Your task to perform on an android device: turn on notifications settings in the gmail app Image 0: 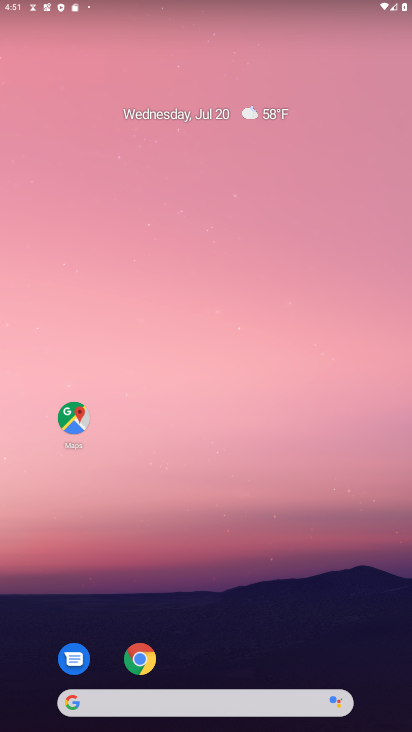
Step 0: drag from (238, 703) to (292, 74)
Your task to perform on an android device: turn on notifications settings in the gmail app Image 1: 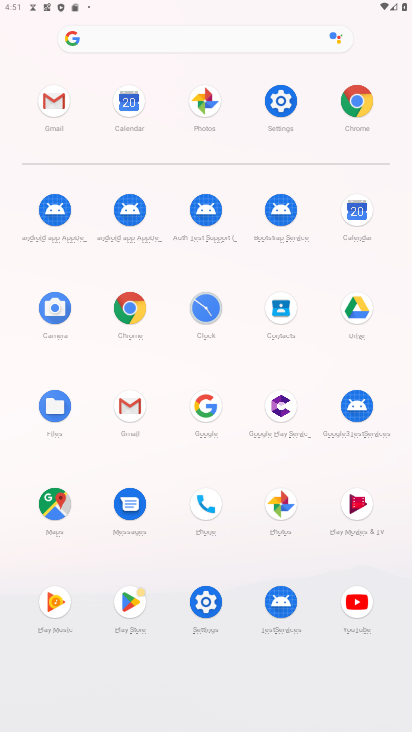
Step 1: click (129, 412)
Your task to perform on an android device: turn on notifications settings in the gmail app Image 2: 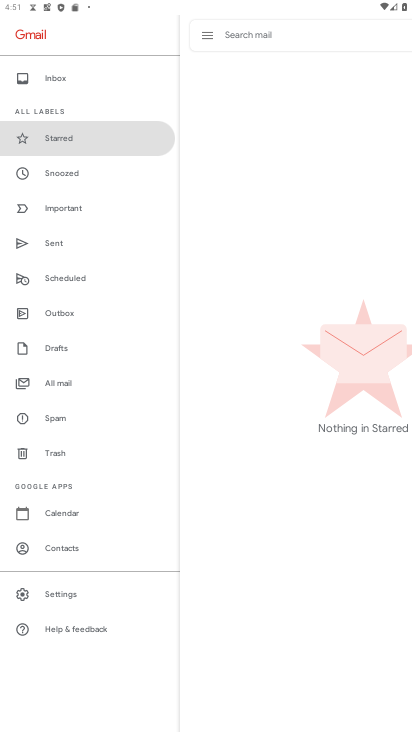
Step 2: click (67, 587)
Your task to perform on an android device: turn on notifications settings in the gmail app Image 3: 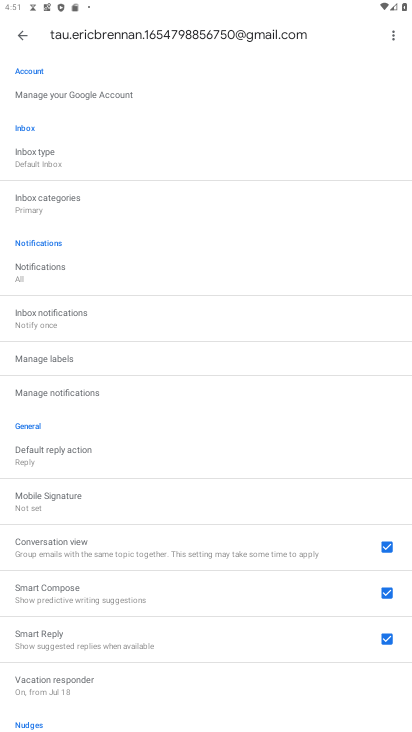
Step 3: click (125, 394)
Your task to perform on an android device: turn on notifications settings in the gmail app Image 4: 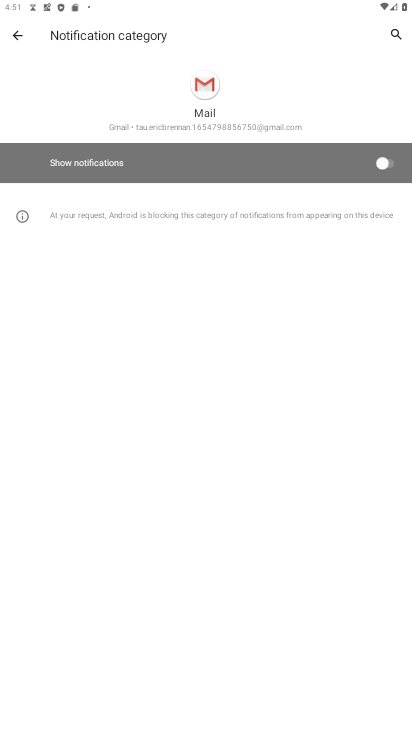
Step 4: click (392, 165)
Your task to perform on an android device: turn on notifications settings in the gmail app Image 5: 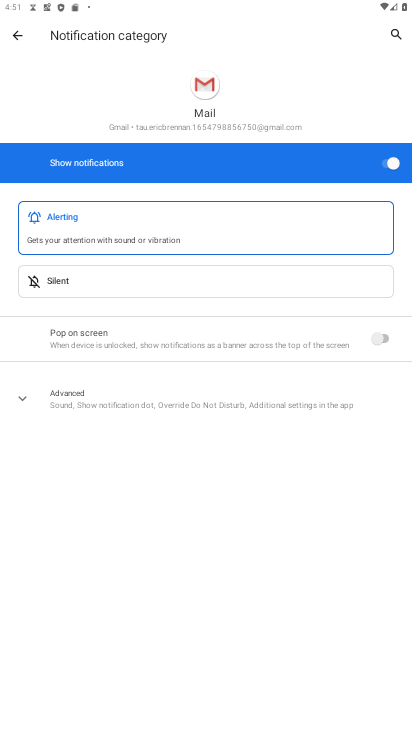
Step 5: task complete